Your task to perform on an android device: open app "Instagram" (install if not already installed) Image 0: 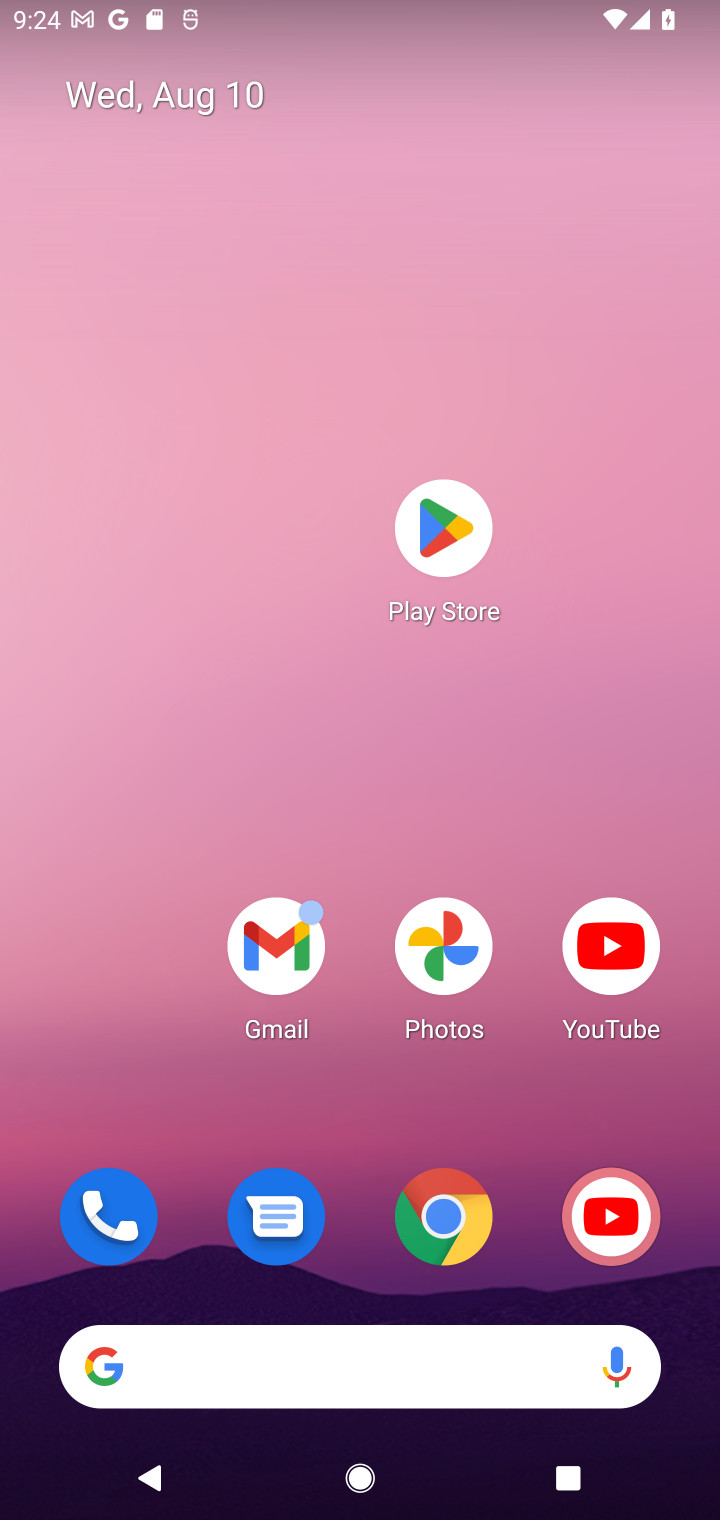
Step 0: click (462, 526)
Your task to perform on an android device: open app "Instagram" (install if not already installed) Image 1: 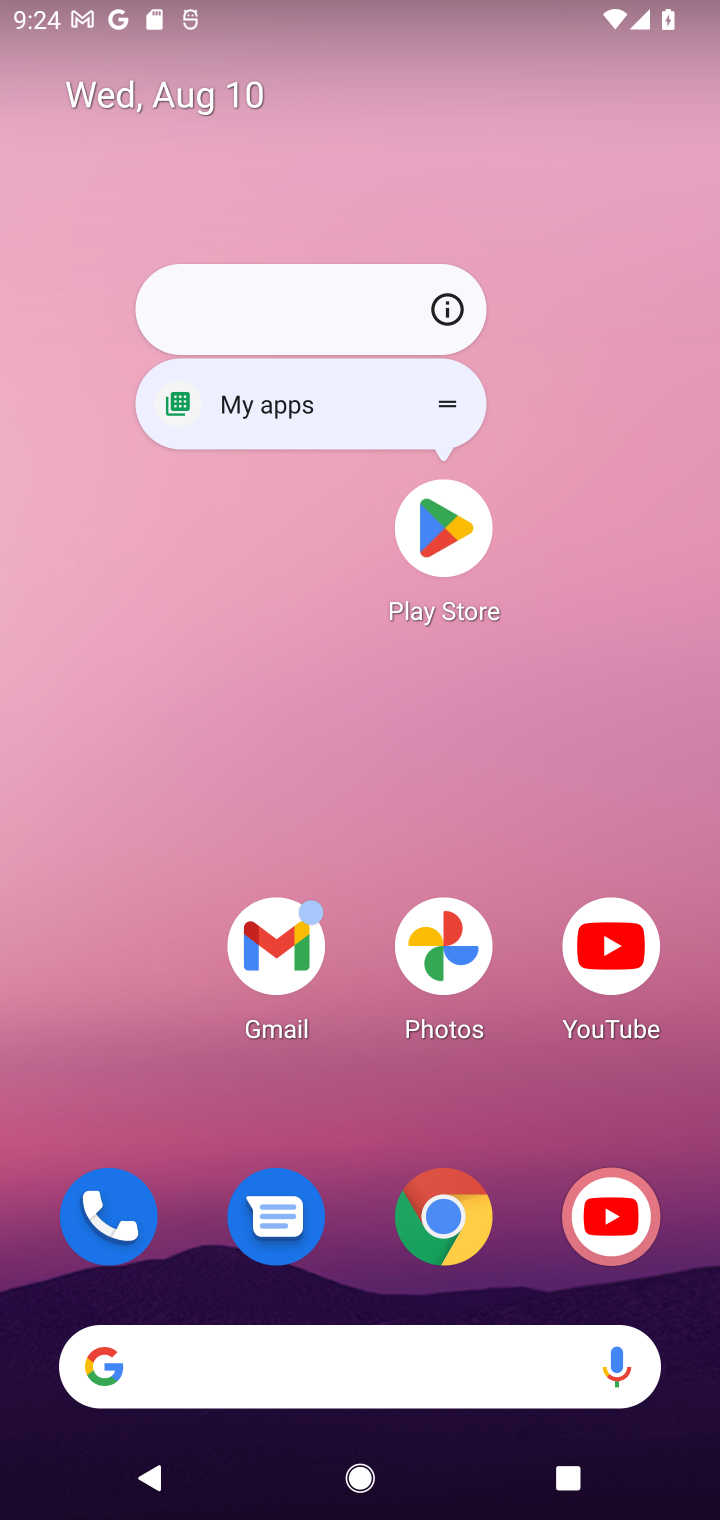
Step 1: click (455, 532)
Your task to perform on an android device: open app "Instagram" (install if not already installed) Image 2: 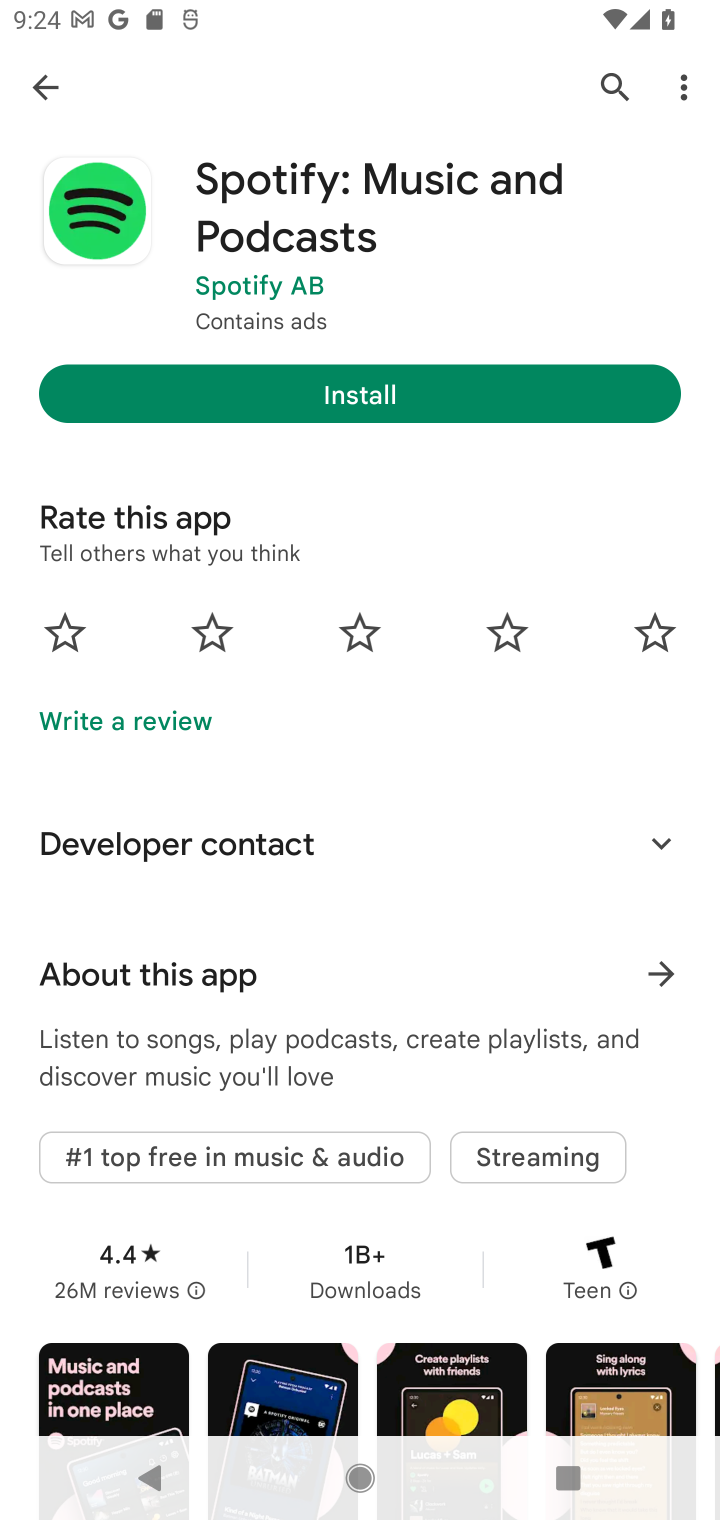
Step 2: click (603, 76)
Your task to perform on an android device: open app "Instagram" (install if not already installed) Image 3: 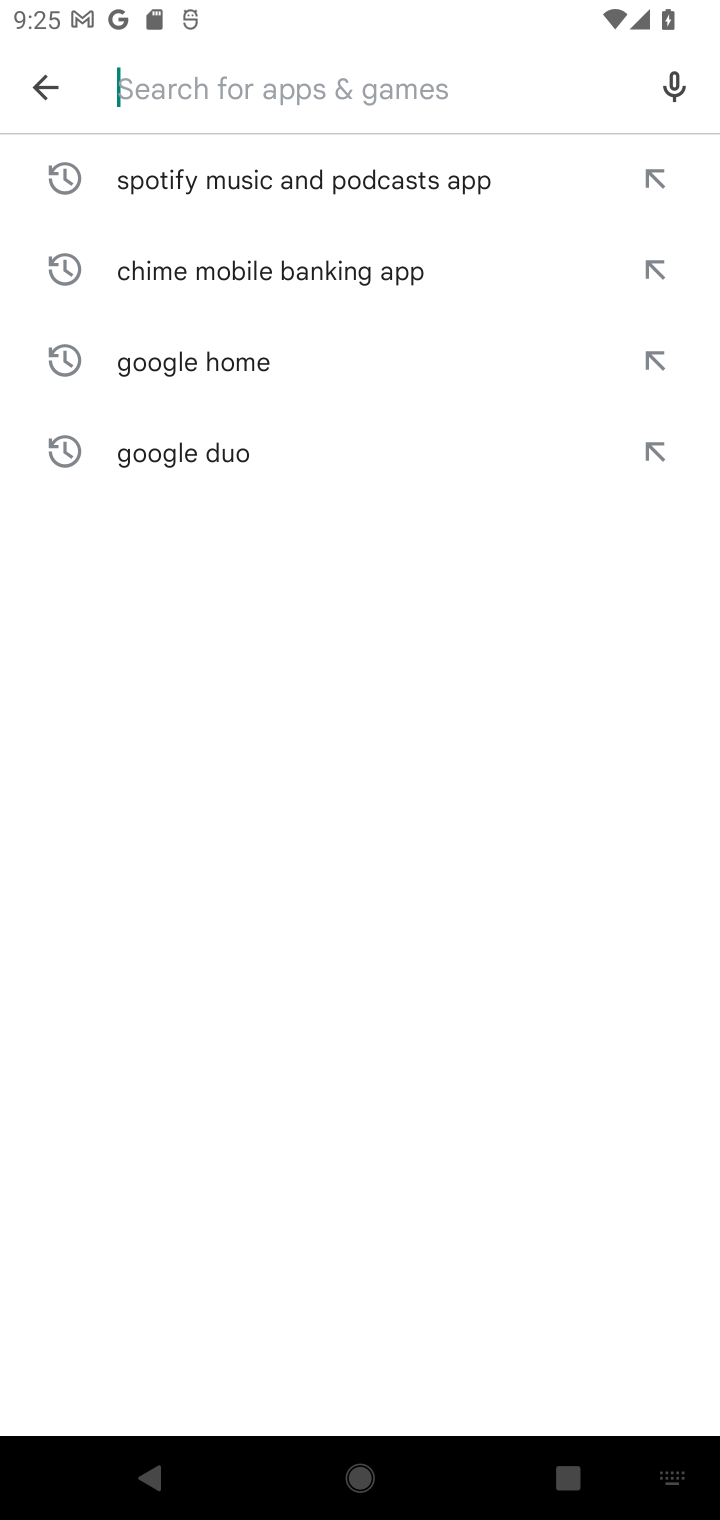
Step 3: type "Instagram"
Your task to perform on an android device: open app "Instagram" (install if not already installed) Image 4: 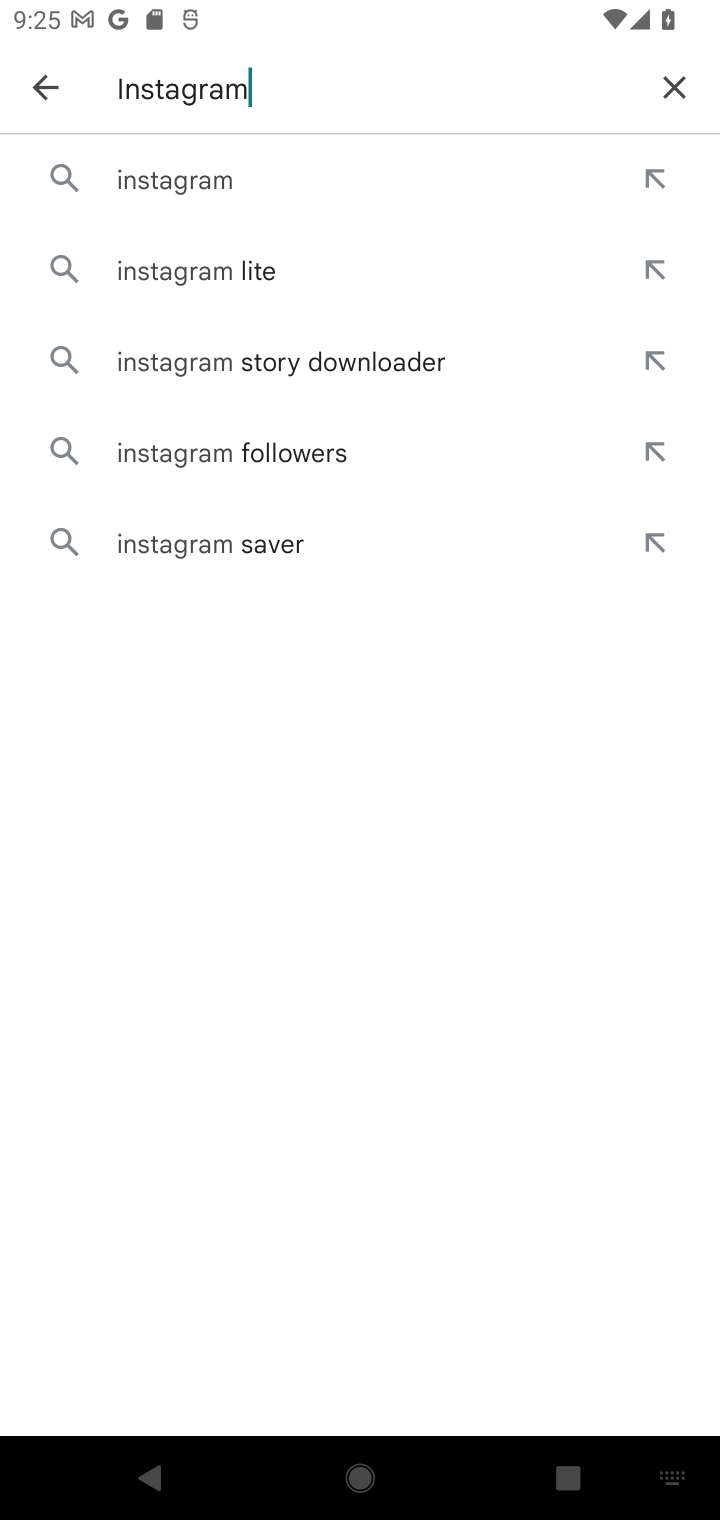
Step 4: click (173, 203)
Your task to perform on an android device: open app "Instagram" (install if not already installed) Image 5: 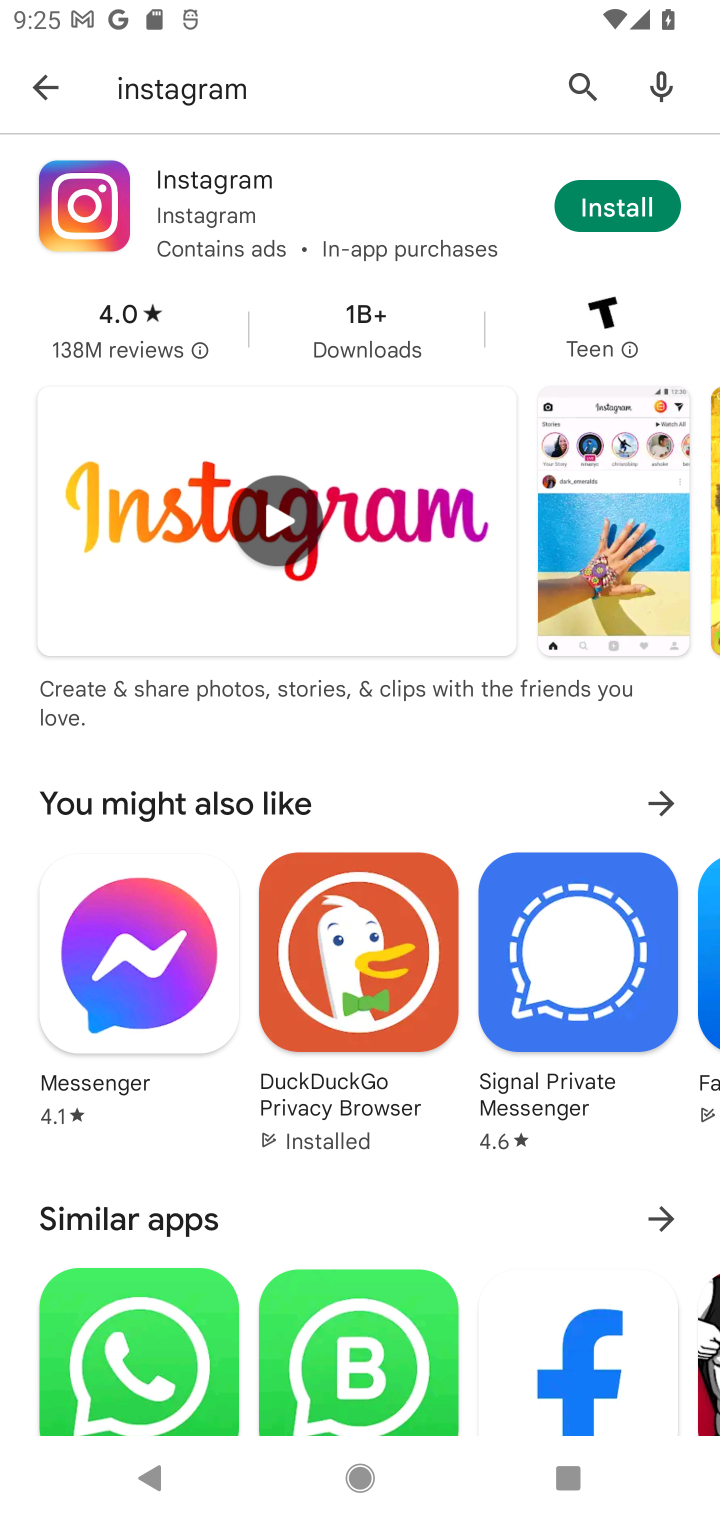
Step 5: click (597, 202)
Your task to perform on an android device: open app "Instagram" (install if not already installed) Image 6: 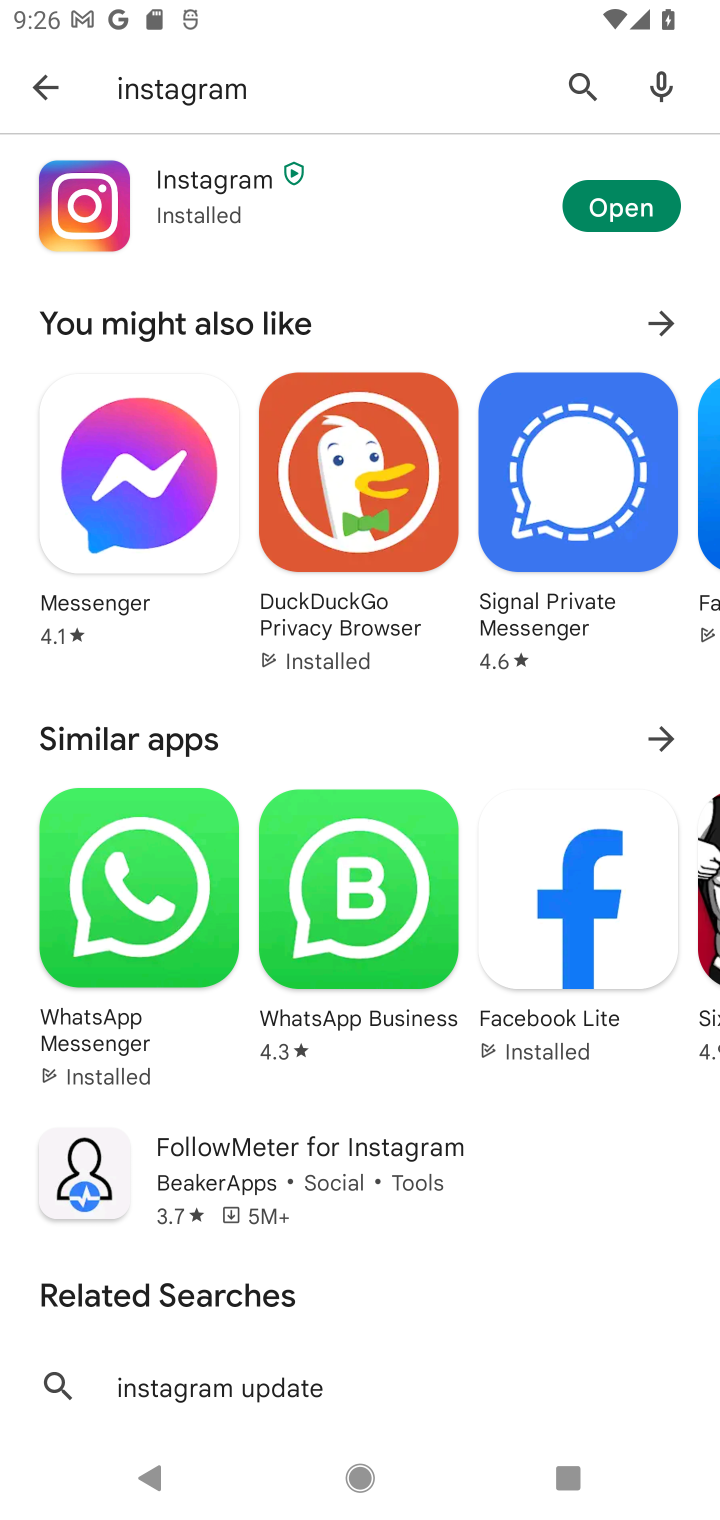
Step 6: click (580, 209)
Your task to perform on an android device: open app "Instagram" (install if not already installed) Image 7: 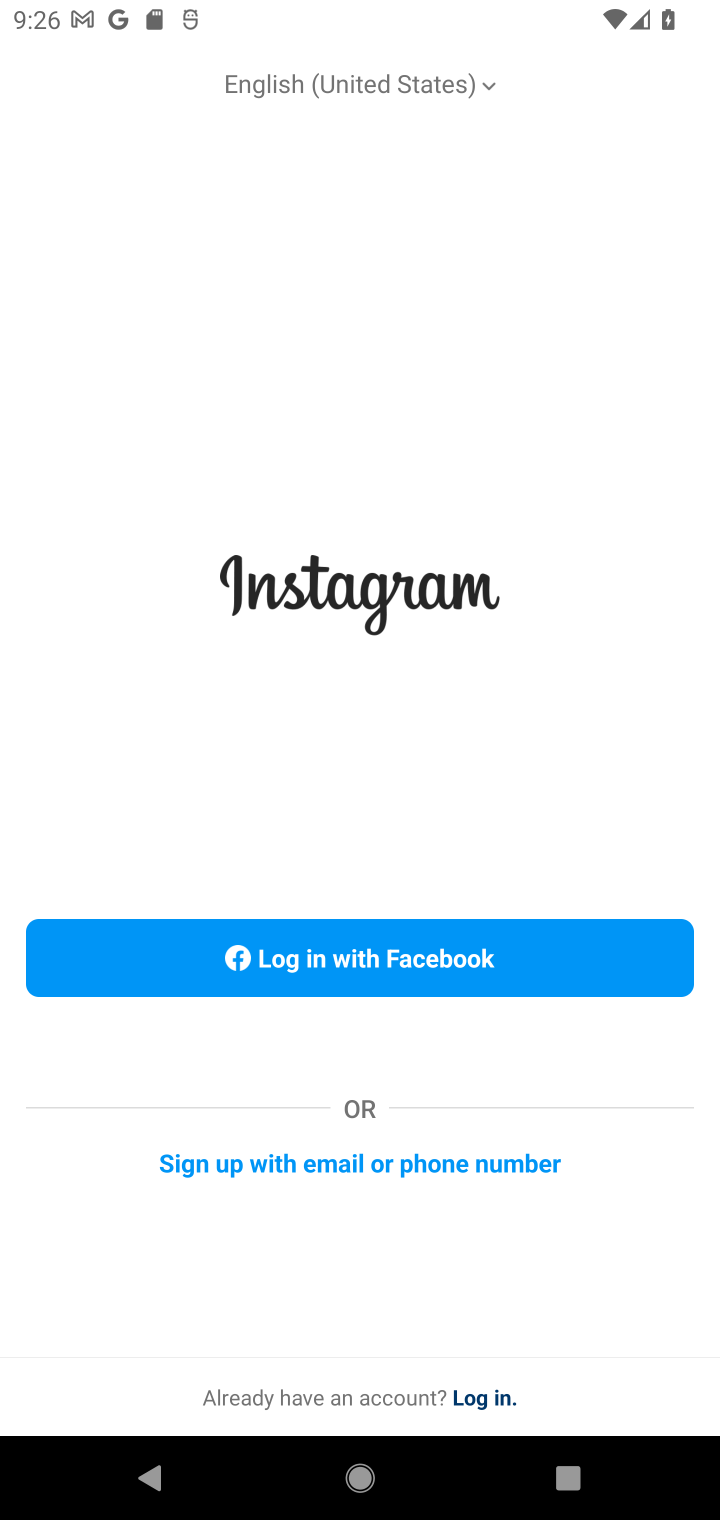
Step 7: task complete